Your task to perform on an android device: Search for floor lamps on article.com Image 0: 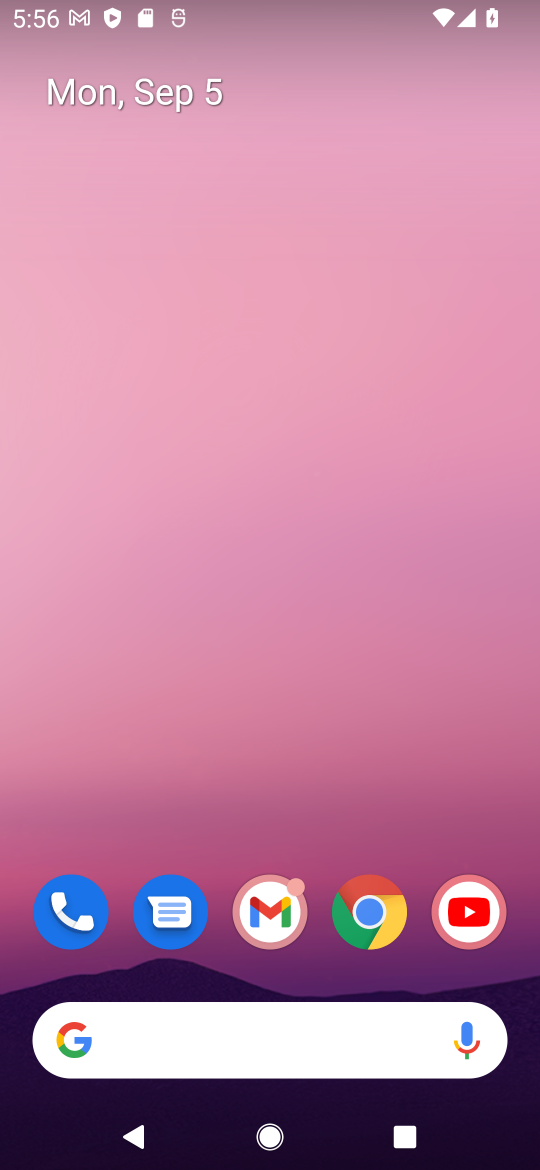
Step 0: click (369, 903)
Your task to perform on an android device: Search for floor lamps on article.com Image 1: 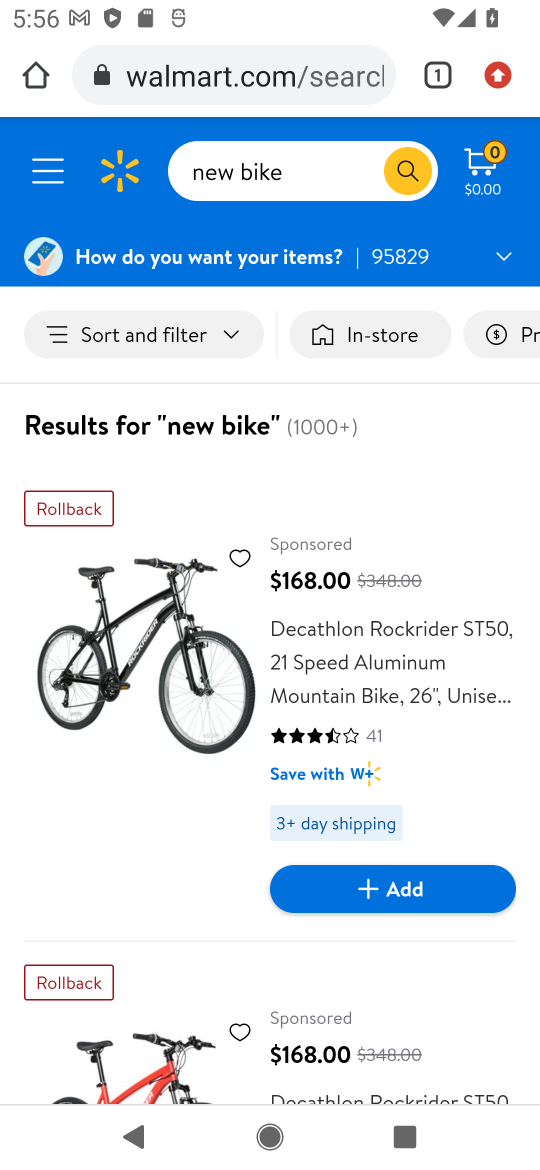
Step 1: click (205, 76)
Your task to perform on an android device: Search for floor lamps on article.com Image 2: 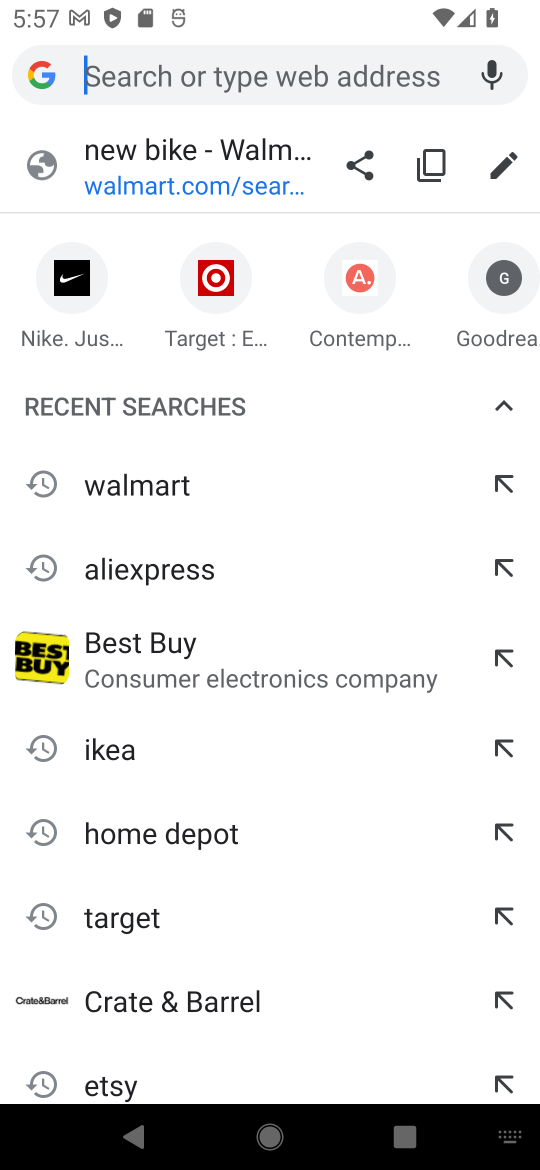
Step 2: type "article.com"
Your task to perform on an android device: Search for floor lamps on article.com Image 3: 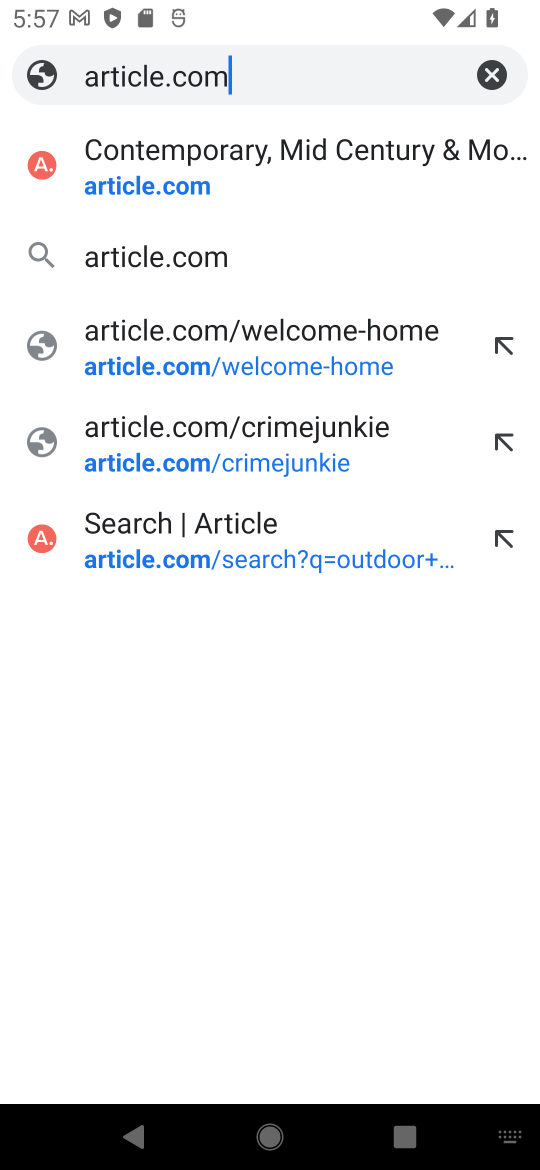
Step 3: press enter
Your task to perform on an android device: Search for floor lamps on article.com Image 4: 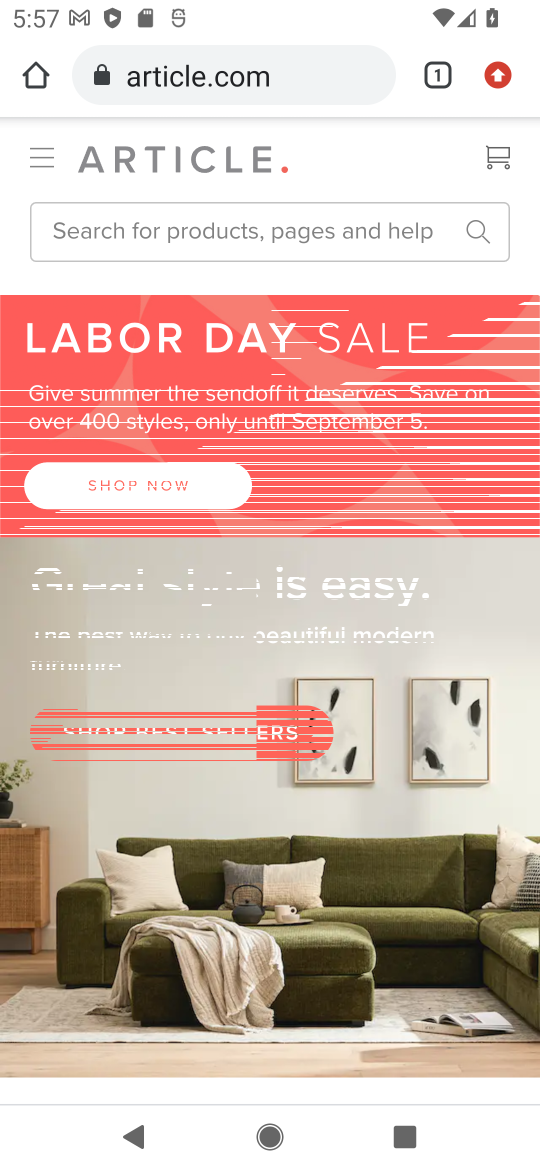
Step 4: click (114, 224)
Your task to perform on an android device: Search for floor lamps on article.com Image 5: 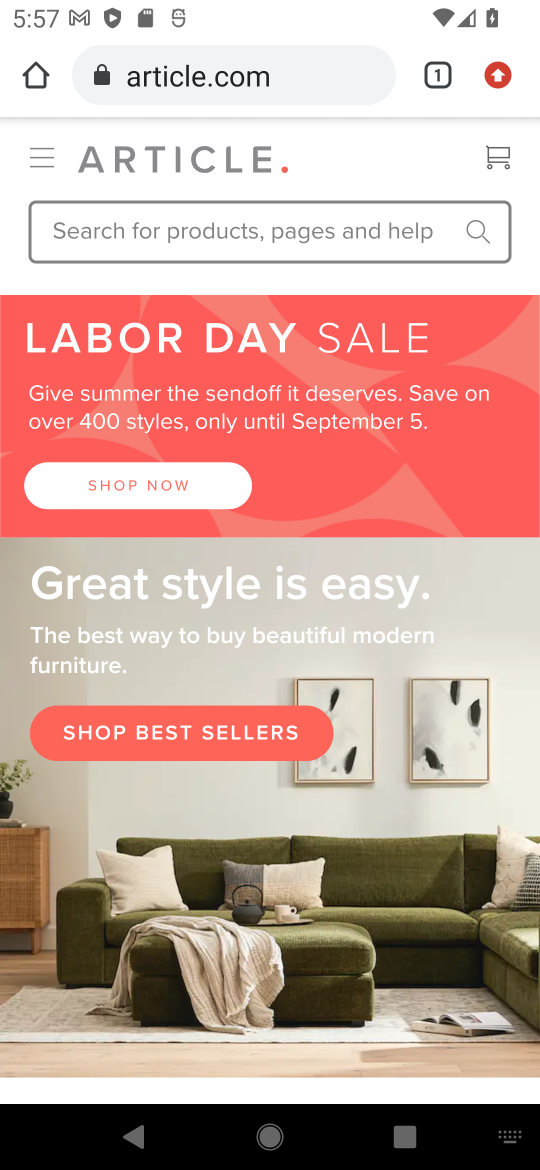
Step 5: click (114, 224)
Your task to perform on an android device: Search for floor lamps on article.com Image 6: 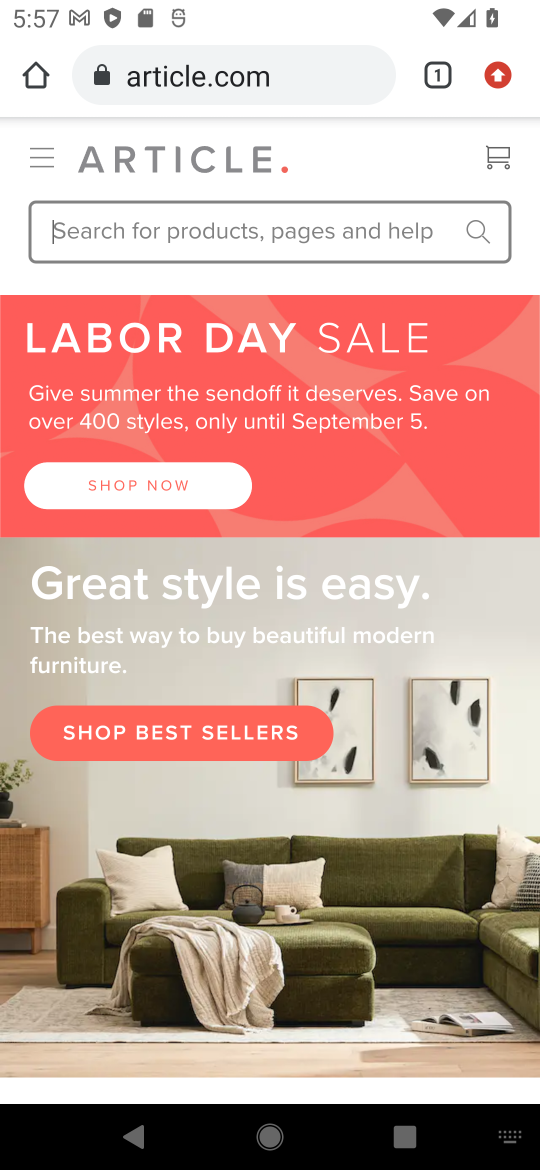
Step 6: type "floor lamps"
Your task to perform on an android device: Search for floor lamps on article.com Image 7: 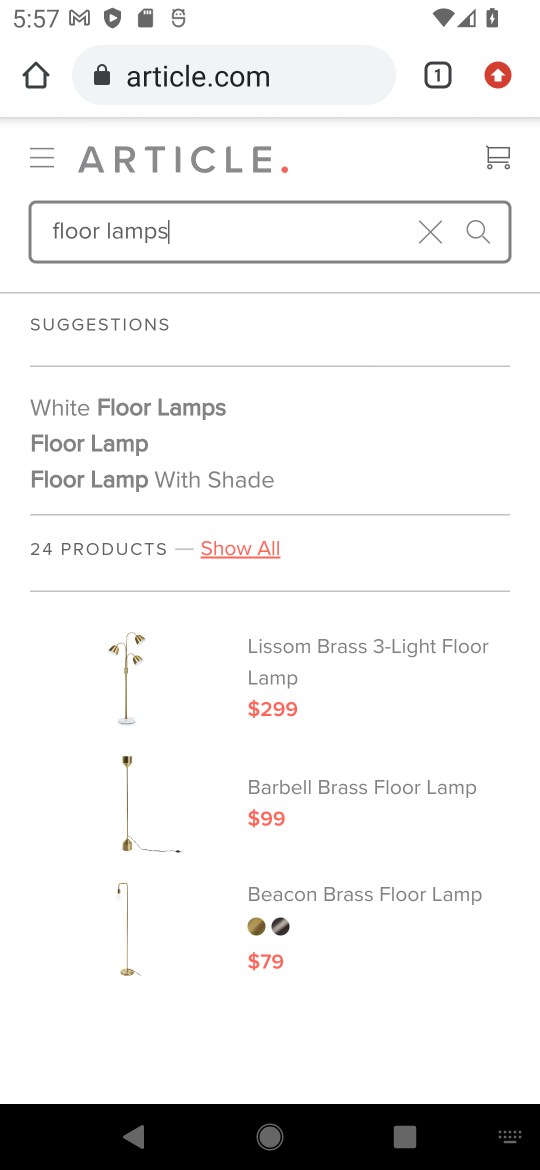
Step 7: press enter
Your task to perform on an android device: Search for floor lamps on article.com Image 8: 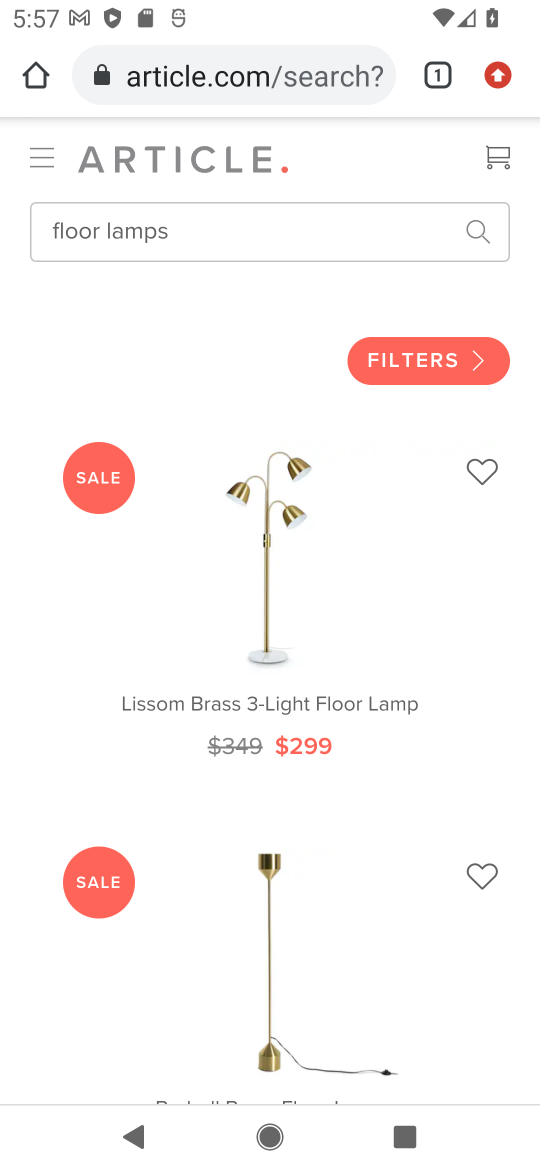
Step 8: task complete